Your task to perform on an android device: Search for seafood restaurants on Google Maps Image 0: 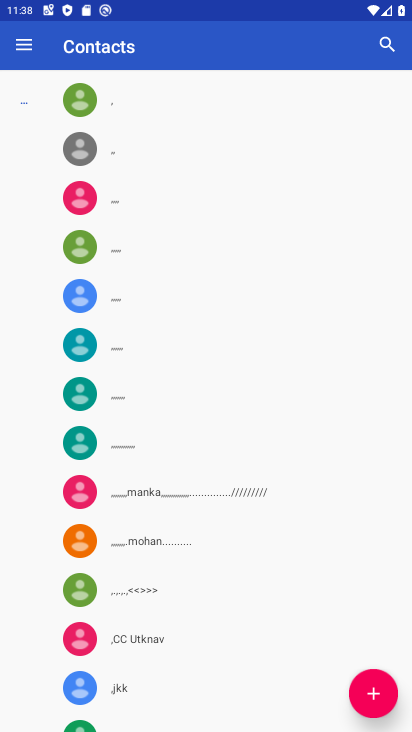
Step 0: press home button
Your task to perform on an android device: Search for seafood restaurants on Google Maps Image 1: 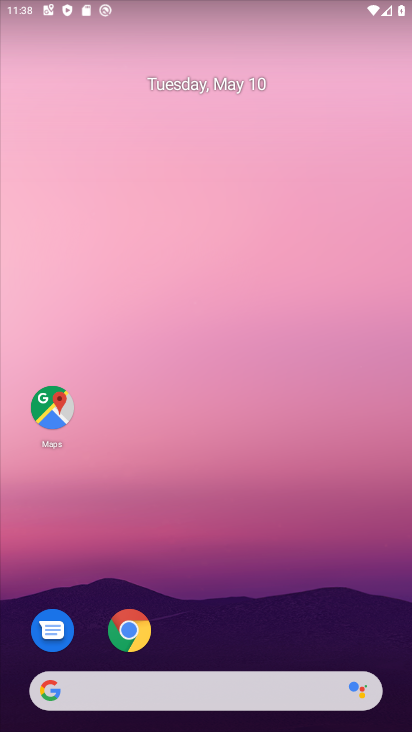
Step 1: click (52, 403)
Your task to perform on an android device: Search for seafood restaurants on Google Maps Image 2: 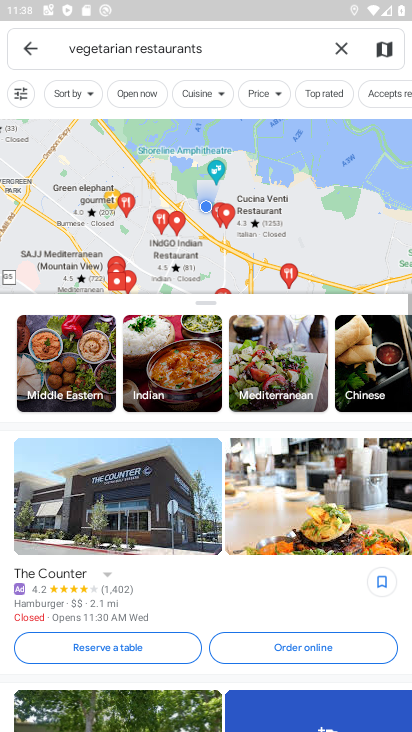
Step 2: click (221, 46)
Your task to perform on an android device: Search for seafood restaurants on Google Maps Image 3: 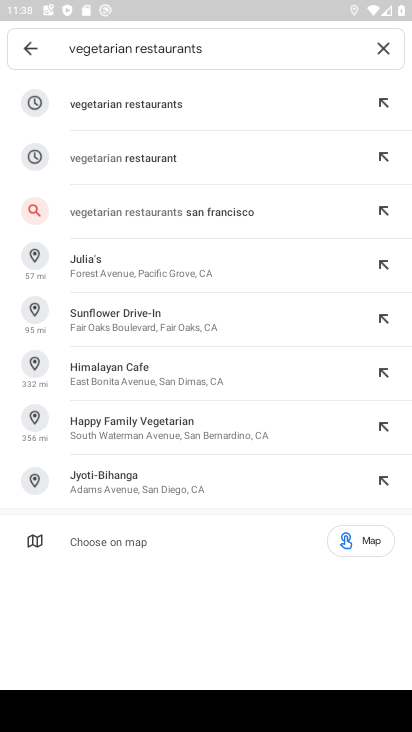
Step 3: click (380, 43)
Your task to perform on an android device: Search for seafood restaurants on Google Maps Image 4: 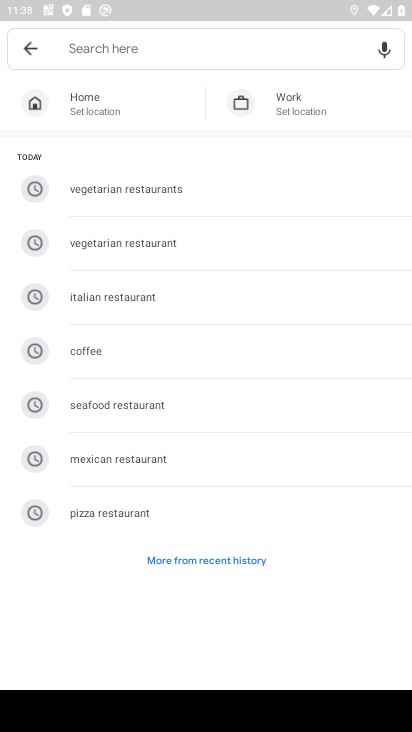
Step 4: type "seafood restaurants"
Your task to perform on an android device: Search for seafood restaurants on Google Maps Image 5: 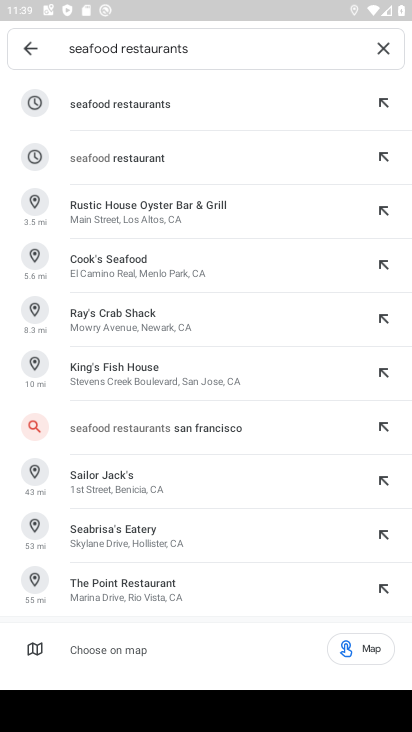
Step 5: click (108, 107)
Your task to perform on an android device: Search for seafood restaurants on Google Maps Image 6: 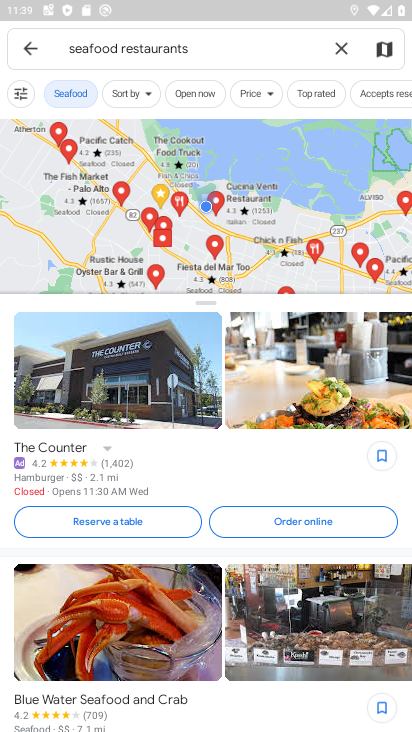
Step 6: task complete